Your task to perform on an android device: open chrome privacy settings Image 0: 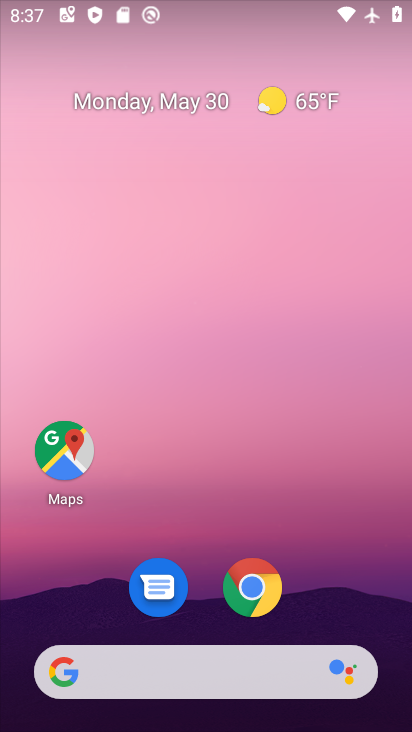
Step 0: press home button
Your task to perform on an android device: open chrome privacy settings Image 1: 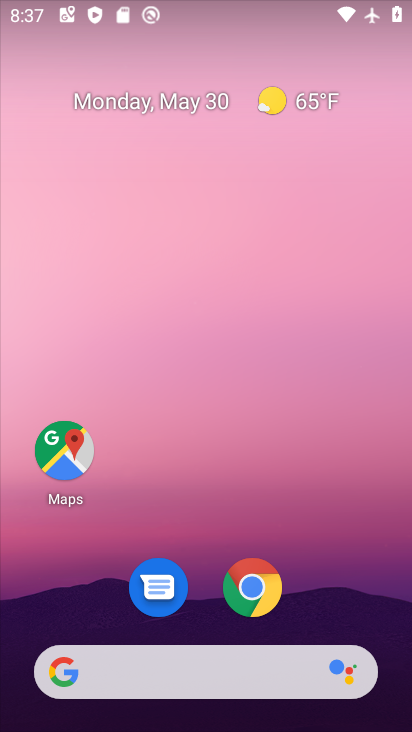
Step 1: click (249, 594)
Your task to perform on an android device: open chrome privacy settings Image 2: 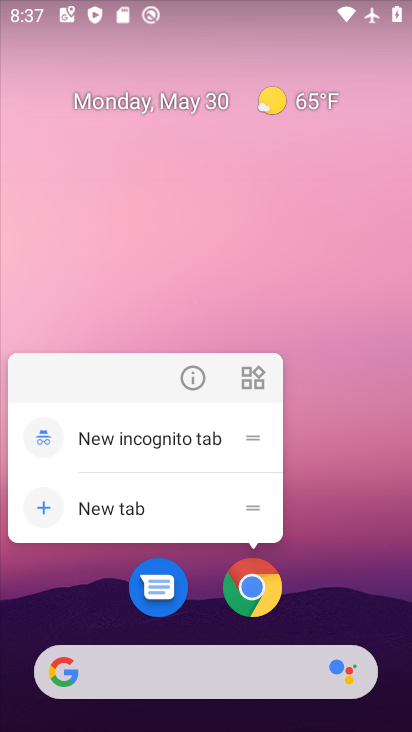
Step 2: click (267, 598)
Your task to perform on an android device: open chrome privacy settings Image 3: 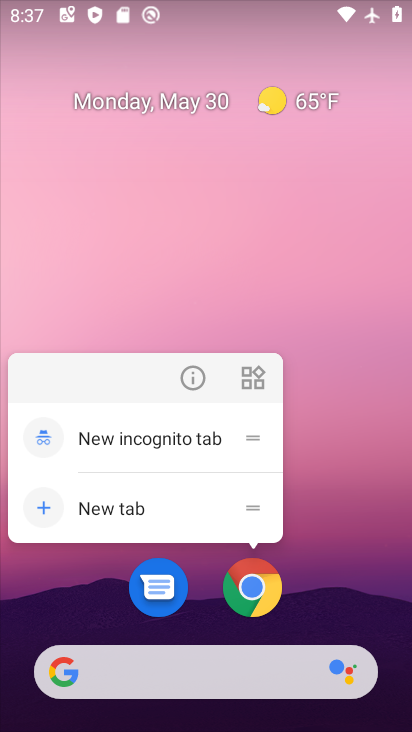
Step 3: click (254, 593)
Your task to perform on an android device: open chrome privacy settings Image 4: 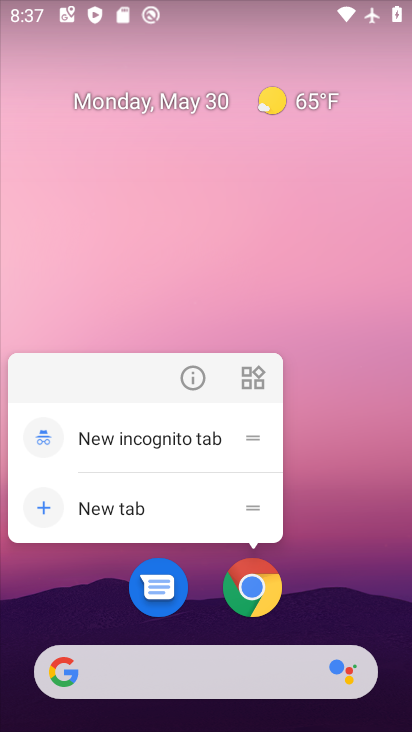
Step 4: click (250, 589)
Your task to perform on an android device: open chrome privacy settings Image 5: 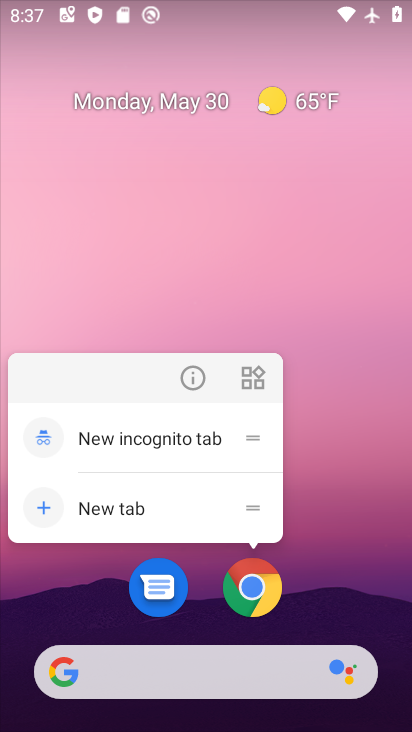
Step 5: click (245, 585)
Your task to perform on an android device: open chrome privacy settings Image 6: 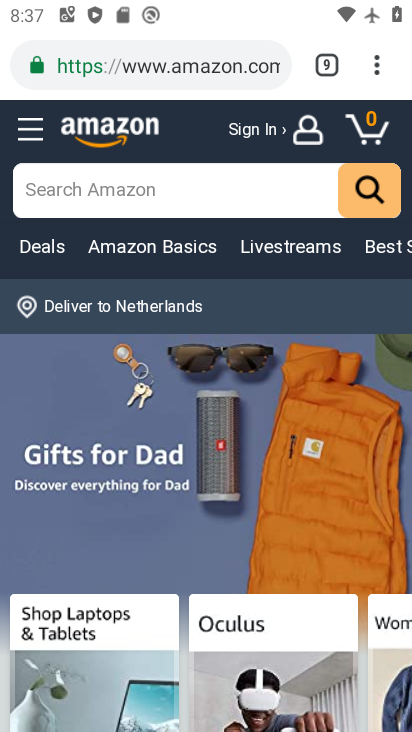
Step 6: drag from (376, 70) to (222, 636)
Your task to perform on an android device: open chrome privacy settings Image 7: 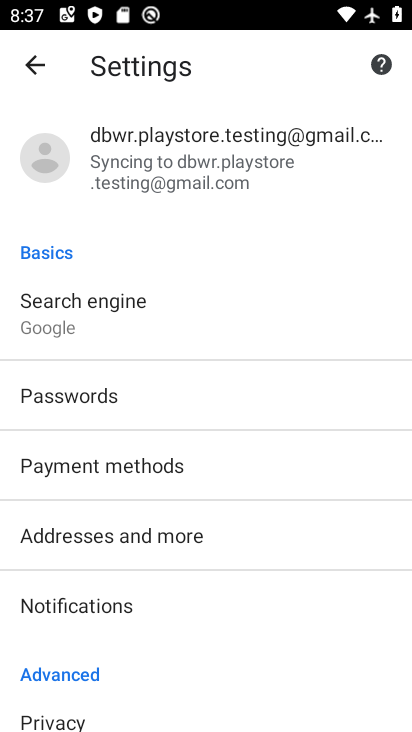
Step 7: drag from (173, 641) to (283, 324)
Your task to perform on an android device: open chrome privacy settings Image 8: 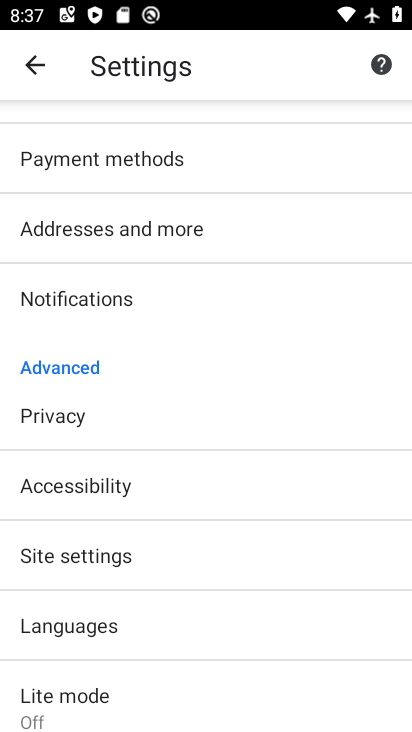
Step 8: click (83, 419)
Your task to perform on an android device: open chrome privacy settings Image 9: 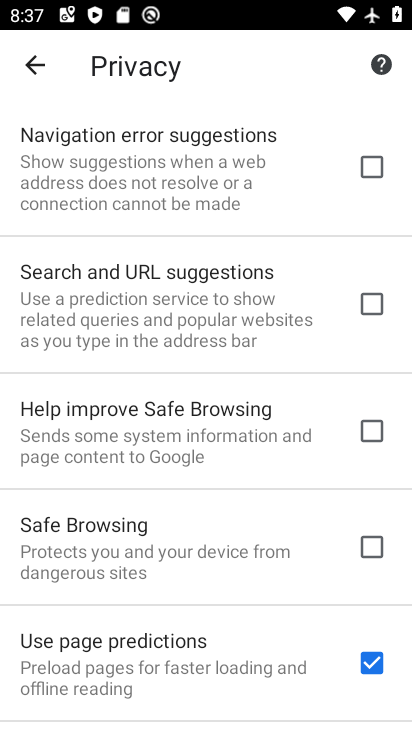
Step 9: task complete